Your task to perform on an android device: turn off location history Image 0: 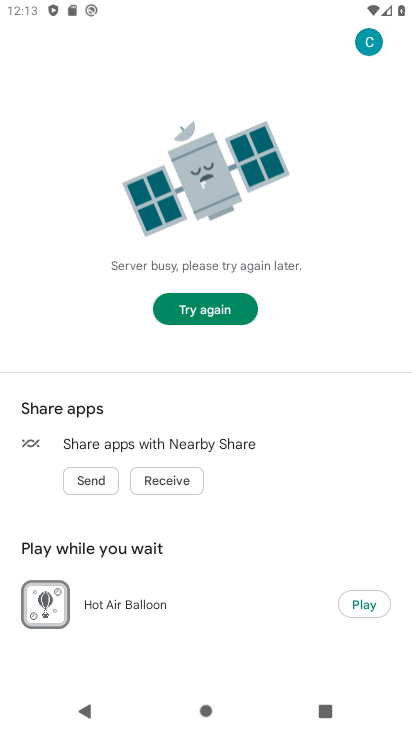
Step 0: press home button
Your task to perform on an android device: turn off location history Image 1: 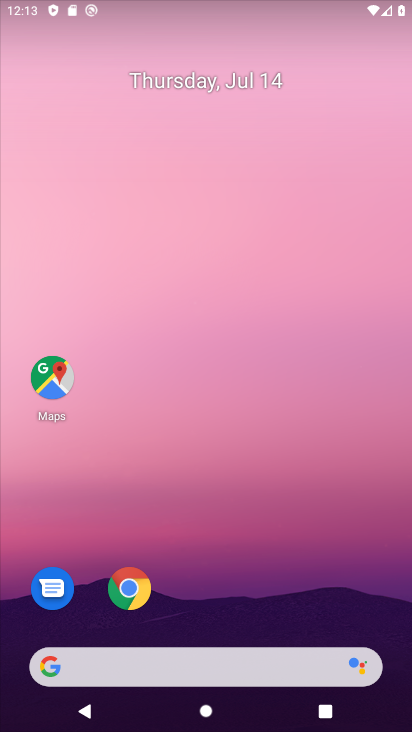
Step 1: drag from (183, 599) to (294, 95)
Your task to perform on an android device: turn off location history Image 2: 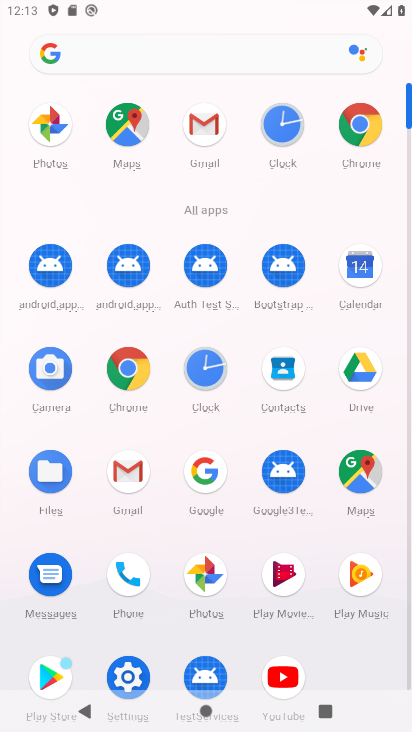
Step 2: click (127, 675)
Your task to perform on an android device: turn off location history Image 3: 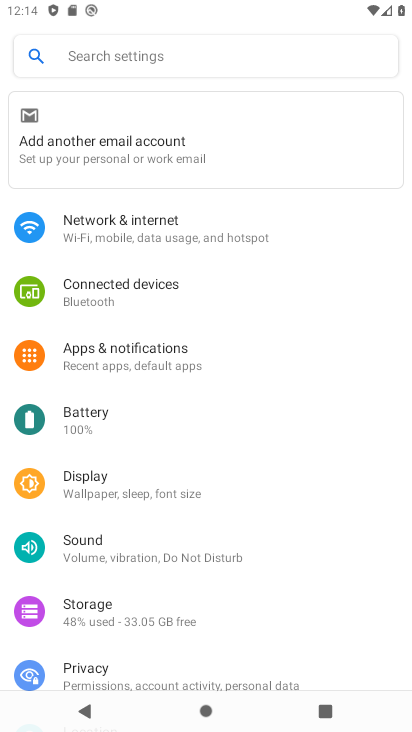
Step 3: drag from (230, 611) to (272, 248)
Your task to perform on an android device: turn off location history Image 4: 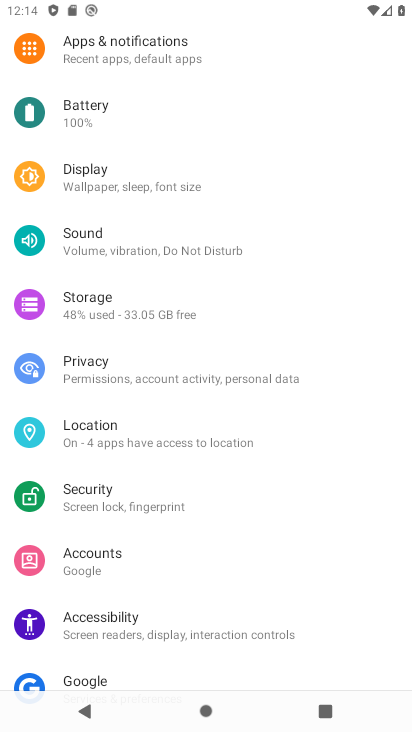
Step 4: click (151, 443)
Your task to perform on an android device: turn off location history Image 5: 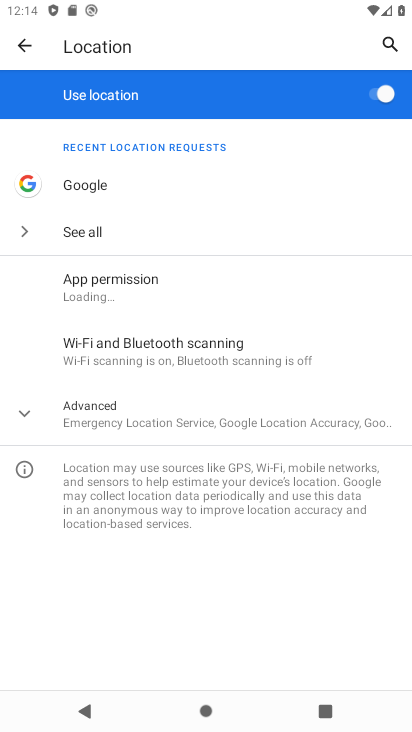
Step 5: click (91, 423)
Your task to perform on an android device: turn off location history Image 6: 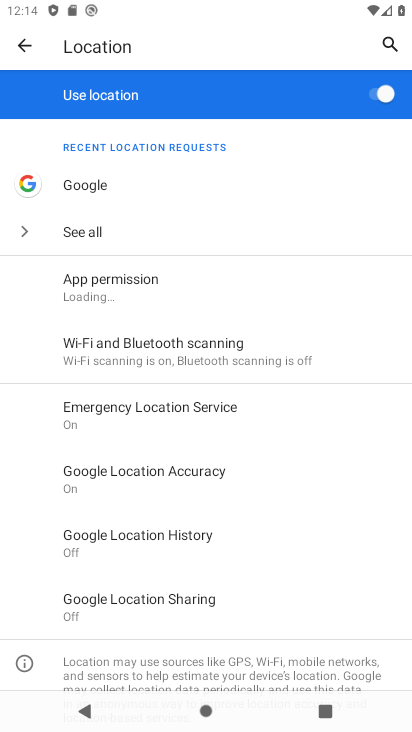
Step 6: click (170, 537)
Your task to perform on an android device: turn off location history Image 7: 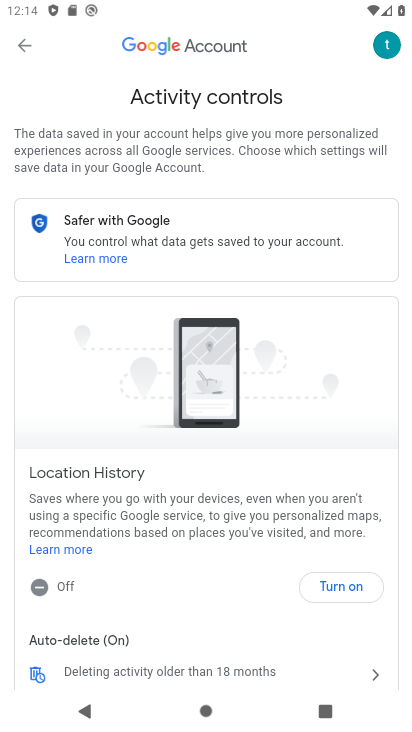
Step 7: task complete